Your task to perform on an android device: change keyboard looks Image 0: 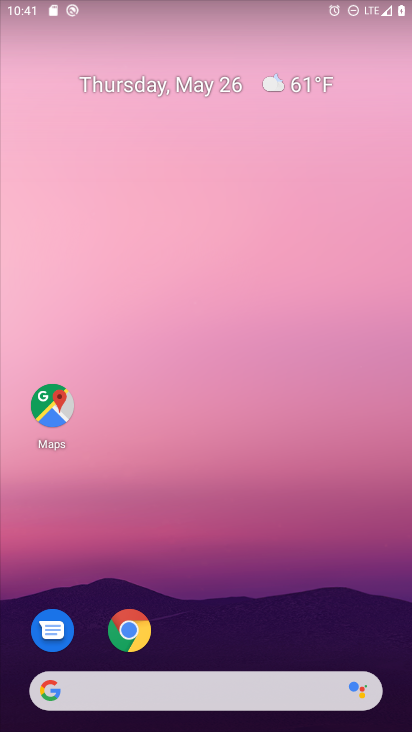
Step 0: drag from (203, 662) to (215, 95)
Your task to perform on an android device: change keyboard looks Image 1: 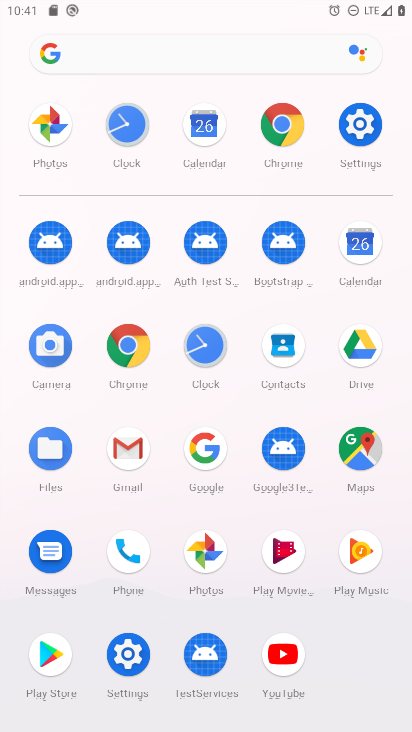
Step 1: click (109, 651)
Your task to perform on an android device: change keyboard looks Image 2: 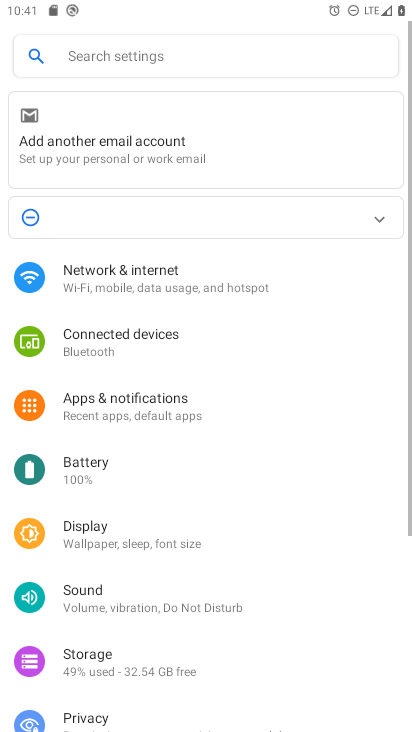
Step 2: drag from (277, 668) to (310, 352)
Your task to perform on an android device: change keyboard looks Image 3: 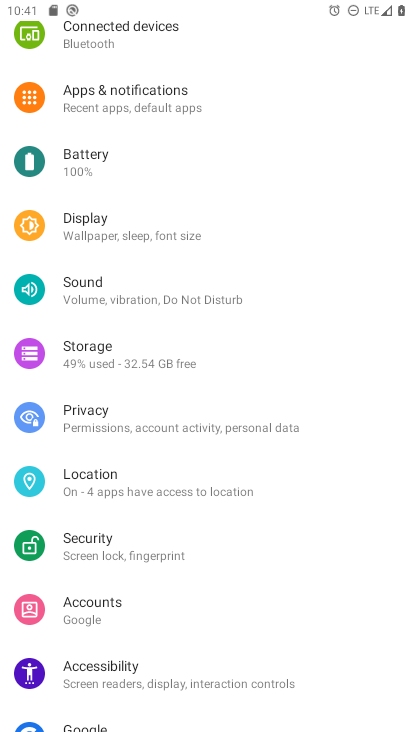
Step 3: click (116, 230)
Your task to perform on an android device: change keyboard looks Image 4: 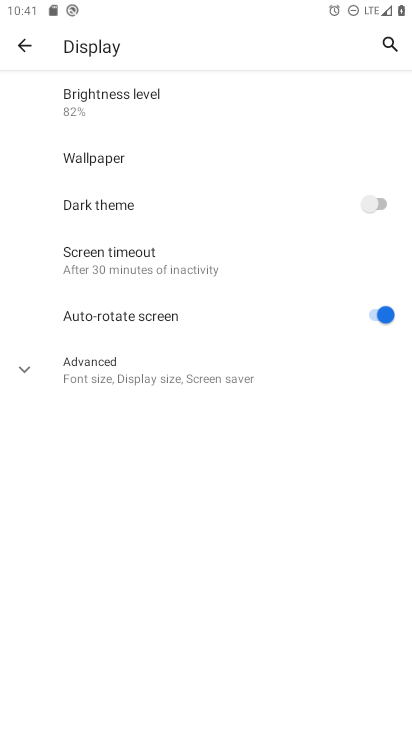
Step 4: click (24, 43)
Your task to perform on an android device: change keyboard looks Image 5: 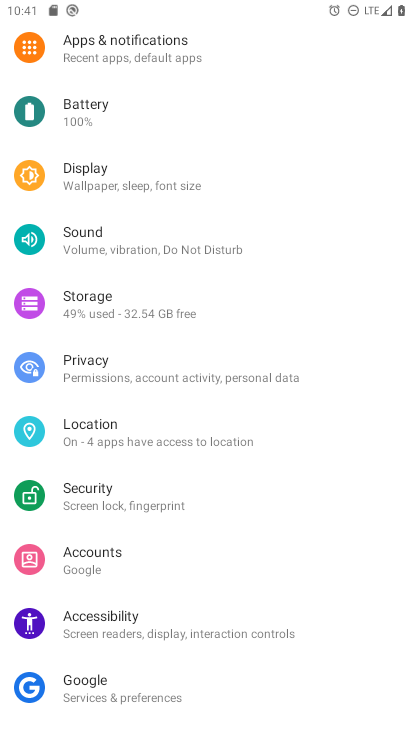
Step 5: drag from (285, 627) to (260, 143)
Your task to perform on an android device: change keyboard looks Image 6: 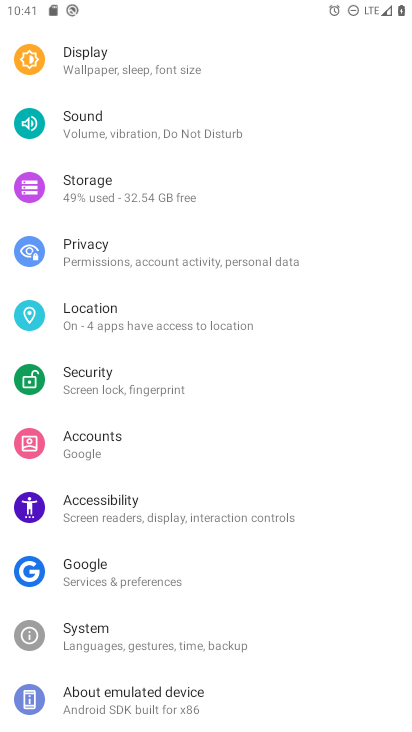
Step 6: click (90, 640)
Your task to perform on an android device: change keyboard looks Image 7: 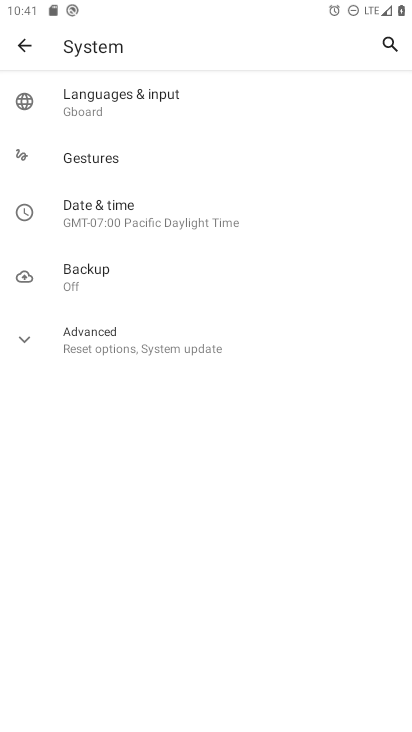
Step 7: click (102, 102)
Your task to perform on an android device: change keyboard looks Image 8: 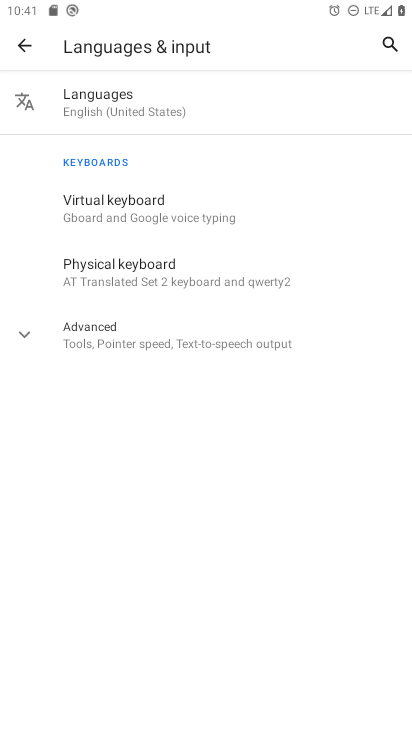
Step 8: click (101, 216)
Your task to perform on an android device: change keyboard looks Image 9: 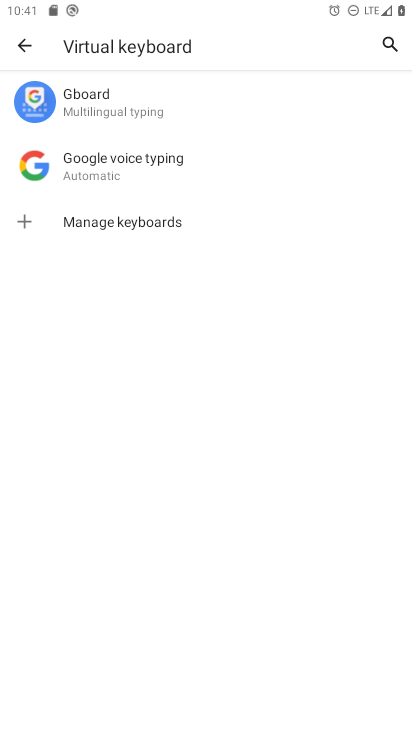
Step 9: click (100, 100)
Your task to perform on an android device: change keyboard looks Image 10: 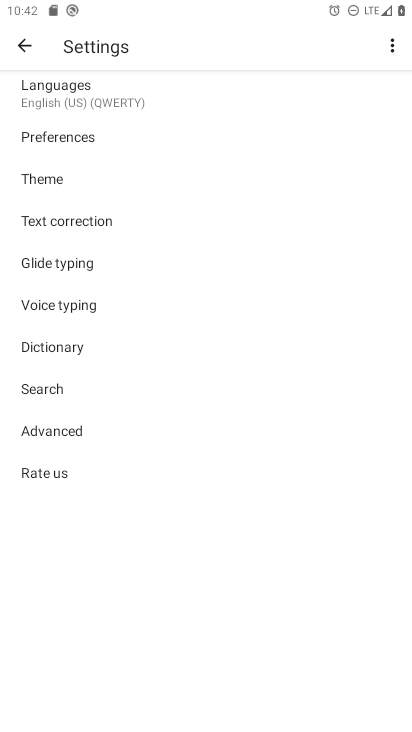
Step 10: click (37, 171)
Your task to perform on an android device: change keyboard looks Image 11: 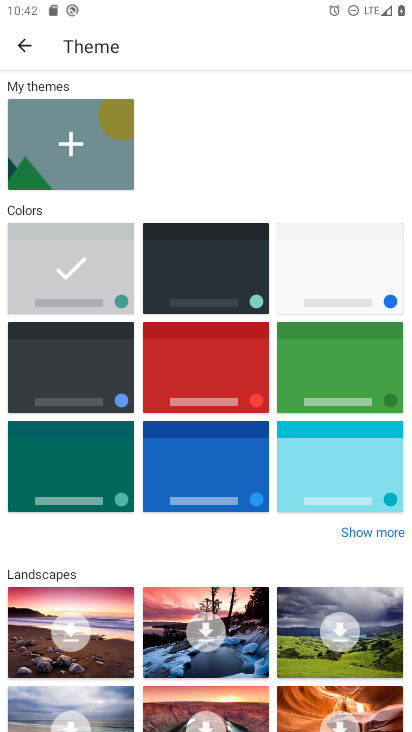
Step 11: click (175, 266)
Your task to perform on an android device: change keyboard looks Image 12: 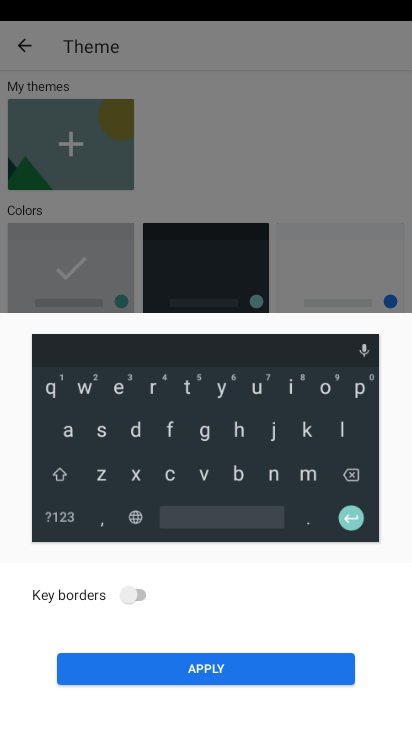
Step 12: click (199, 652)
Your task to perform on an android device: change keyboard looks Image 13: 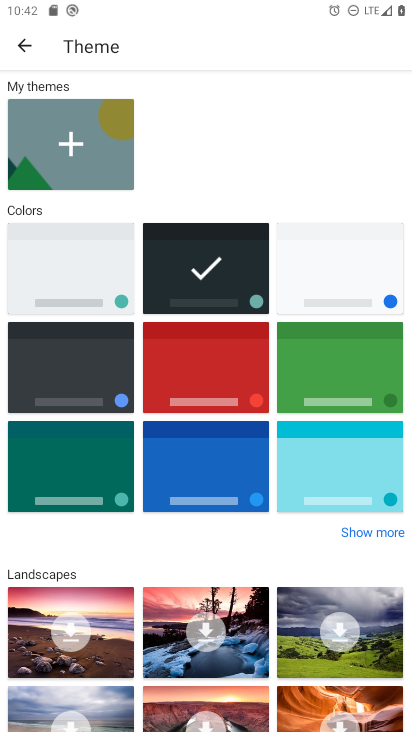
Step 13: task complete